Your task to perform on an android device: Open settings Image 0: 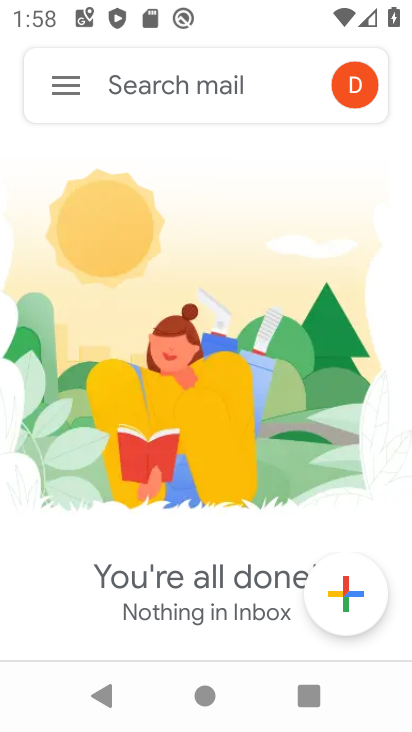
Step 0: press home button
Your task to perform on an android device: Open settings Image 1: 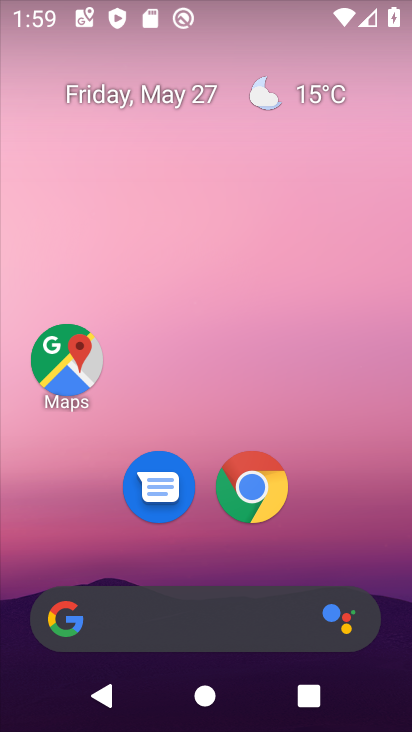
Step 1: drag from (202, 560) to (224, 170)
Your task to perform on an android device: Open settings Image 2: 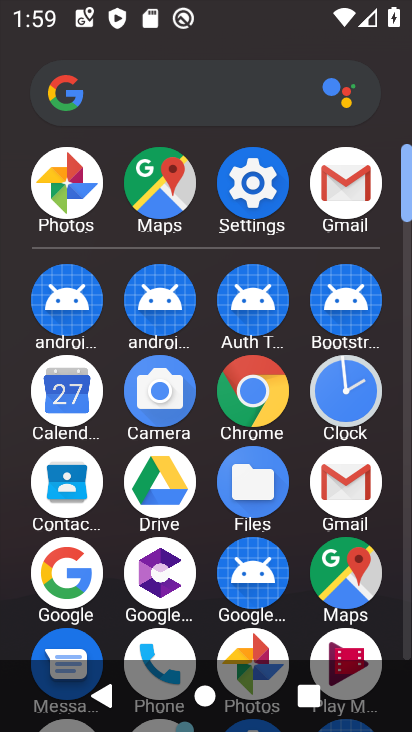
Step 2: click (240, 182)
Your task to perform on an android device: Open settings Image 3: 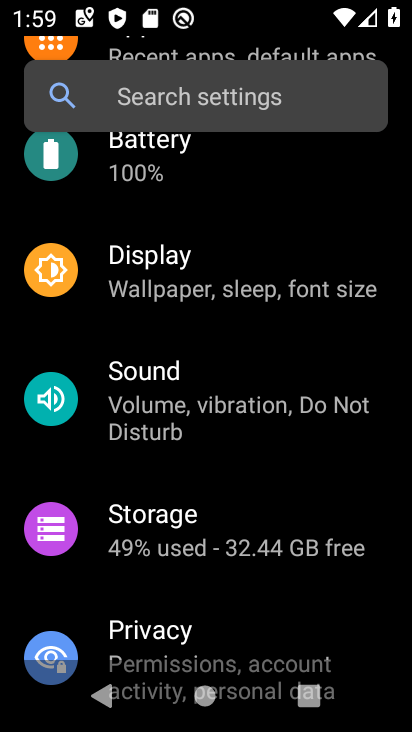
Step 3: task complete